Your task to perform on an android device: Go to accessibility settings Image 0: 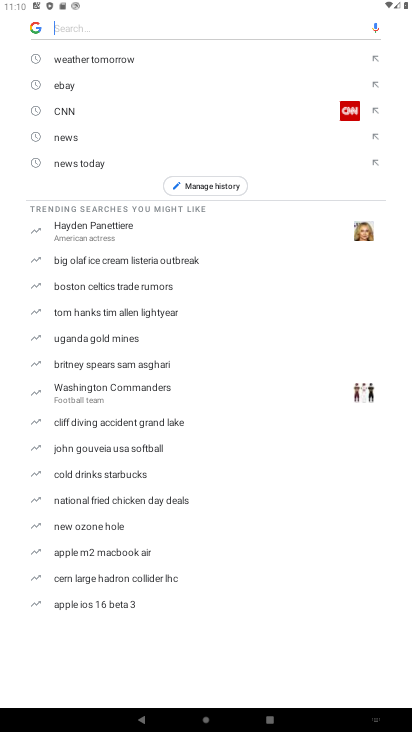
Step 0: press back button
Your task to perform on an android device: Go to accessibility settings Image 1: 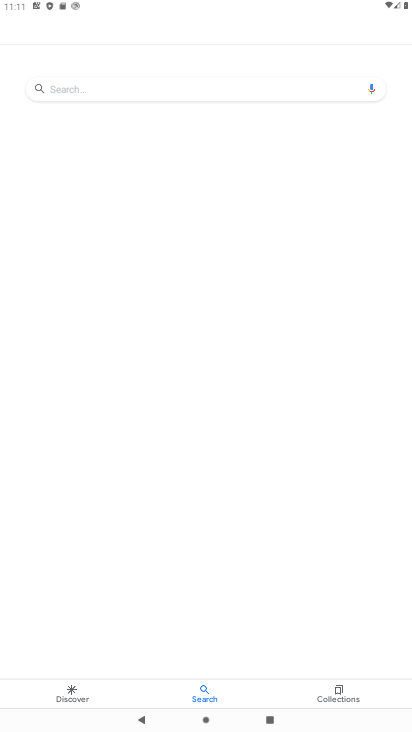
Step 1: press home button
Your task to perform on an android device: Go to accessibility settings Image 2: 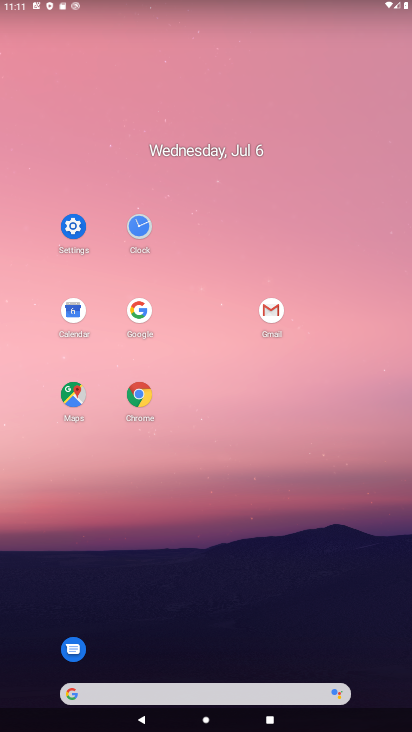
Step 2: click (78, 220)
Your task to perform on an android device: Go to accessibility settings Image 3: 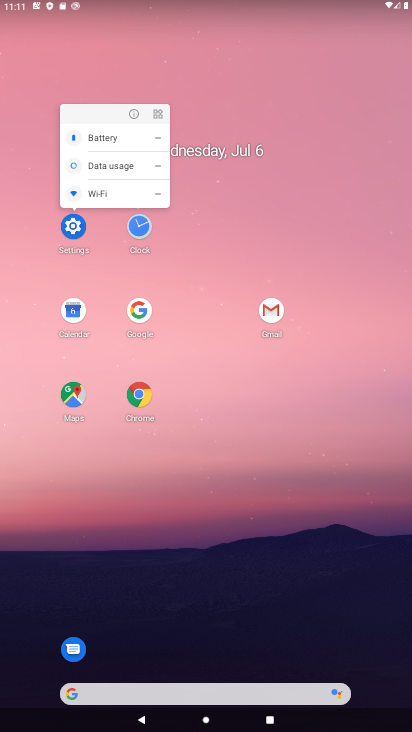
Step 3: click (73, 226)
Your task to perform on an android device: Go to accessibility settings Image 4: 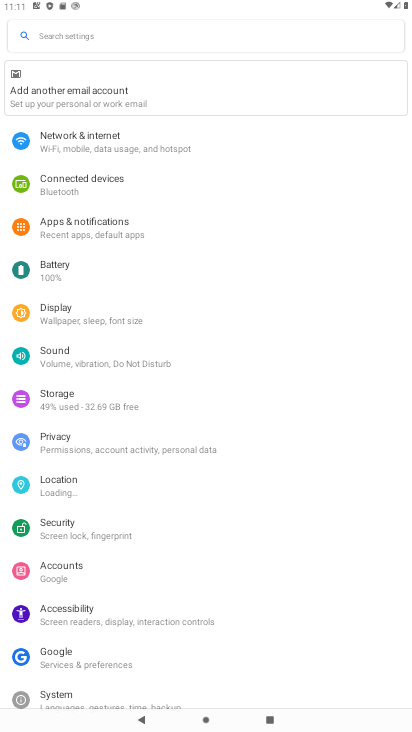
Step 4: click (155, 618)
Your task to perform on an android device: Go to accessibility settings Image 5: 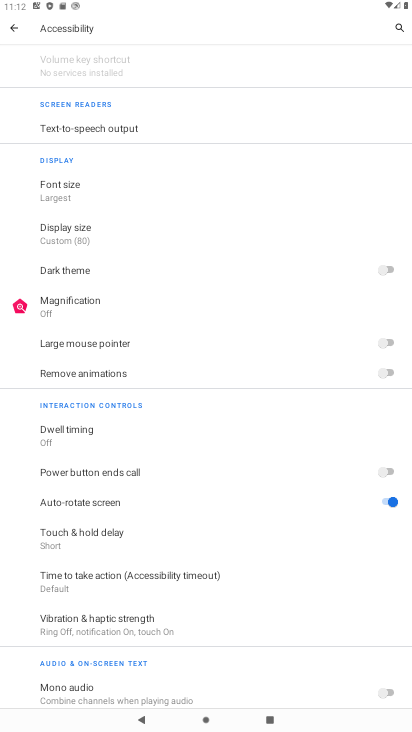
Step 5: task complete